Your task to perform on an android device: Open network settings Image 0: 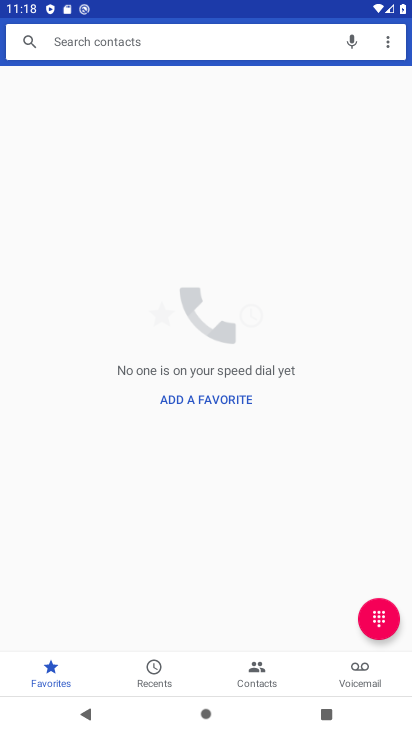
Step 0: press home button
Your task to perform on an android device: Open network settings Image 1: 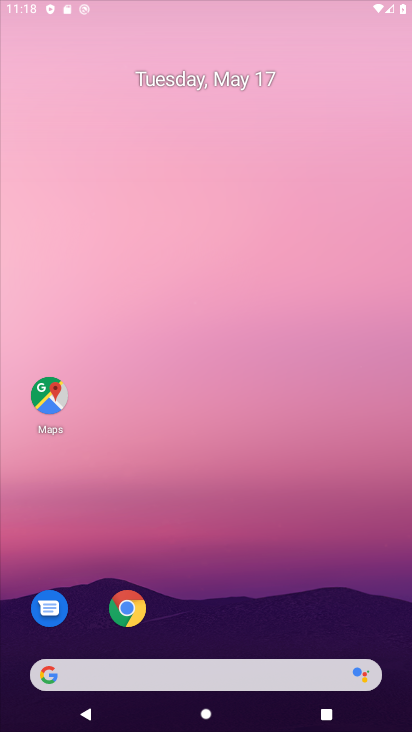
Step 1: drag from (302, 507) to (179, 53)
Your task to perform on an android device: Open network settings Image 2: 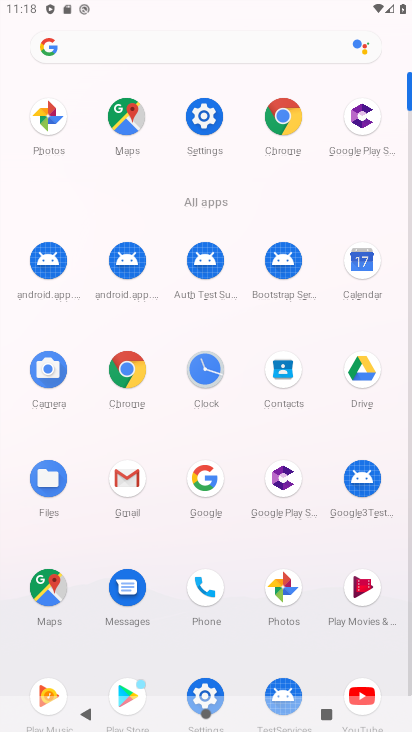
Step 2: click (191, 115)
Your task to perform on an android device: Open network settings Image 3: 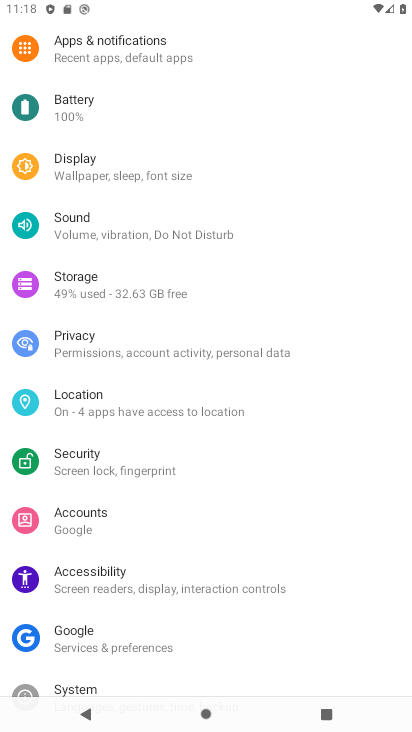
Step 3: drag from (232, 118) to (260, 624)
Your task to perform on an android device: Open network settings Image 4: 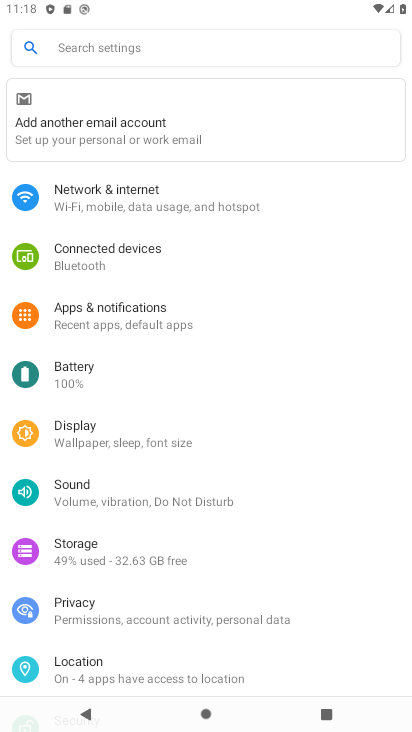
Step 4: click (170, 203)
Your task to perform on an android device: Open network settings Image 5: 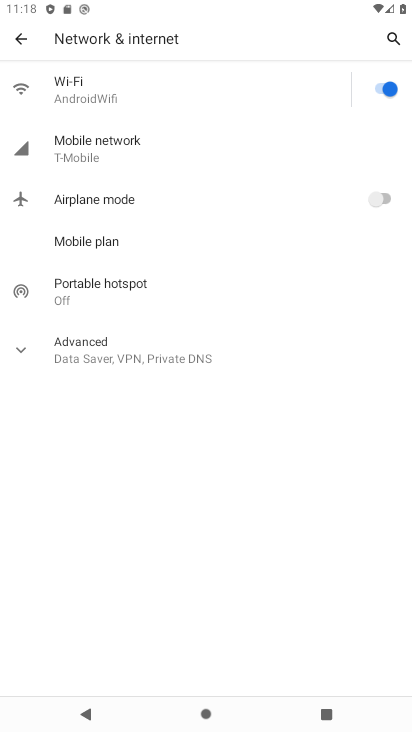
Step 5: task complete